Your task to perform on an android device: Open the phone app and click the voicemail tab. Image 0: 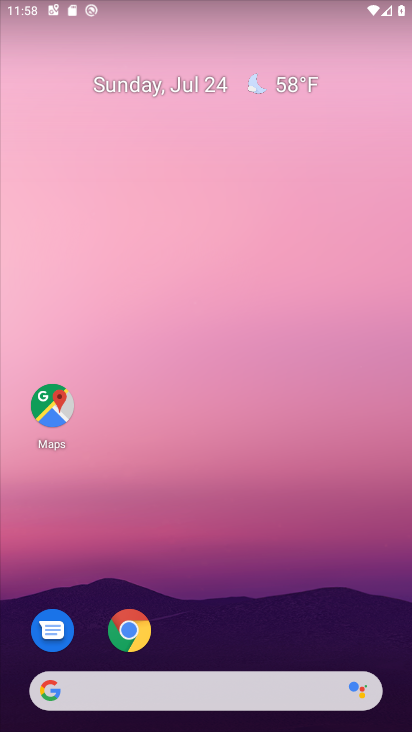
Step 0: drag from (196, 349) to (205, 129)
Your task to perform on an android device: Open the phone app and click the voicemail tab. Image 1: 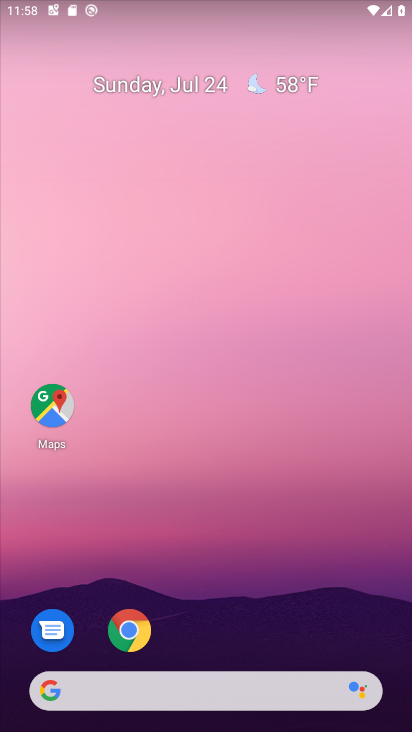
Step 1: drag from (164, 130) to (230, 200)
Your task to perform on an android device: Open the phone app and click the voicemail tab. Image 2: 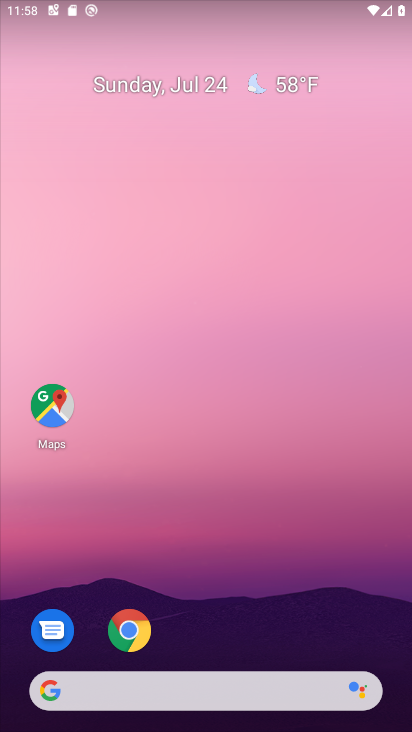
Step 2: drag from (192, 494) to (189, 146)
Your task to perform on an android device: Open the phone app and click the voicemail tab. Image 3: 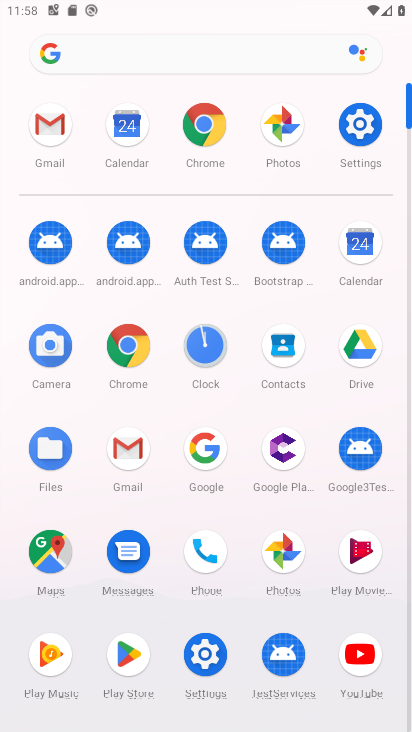
Step 3: click (198, 549)
Your task to perform on an android device: Open the phone app and click the voicemail tab. Image 4: 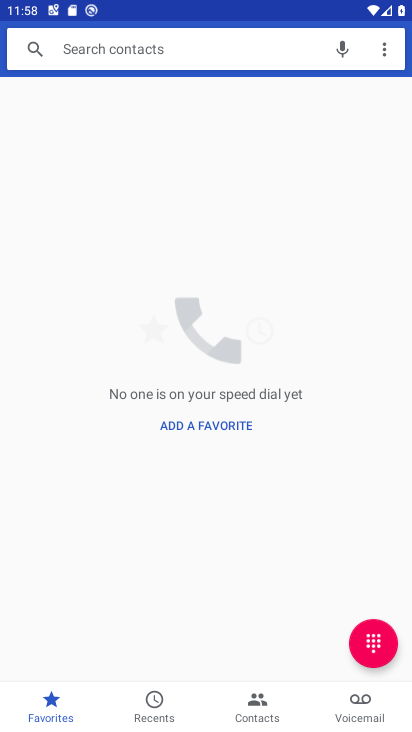
Step 4: click (352, 704)
Your task to perform on an android device: Open the phone app and click the voicemail tab. Image 5: 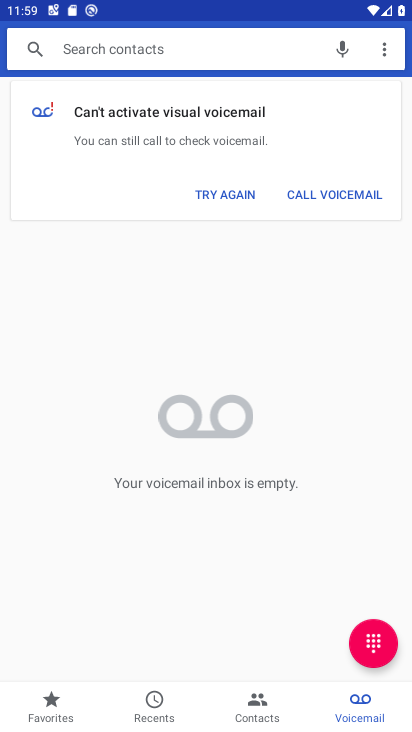
Step 5: task complete